Your task to perform on an android device: Play the latest video from the Washington Post Image 0: 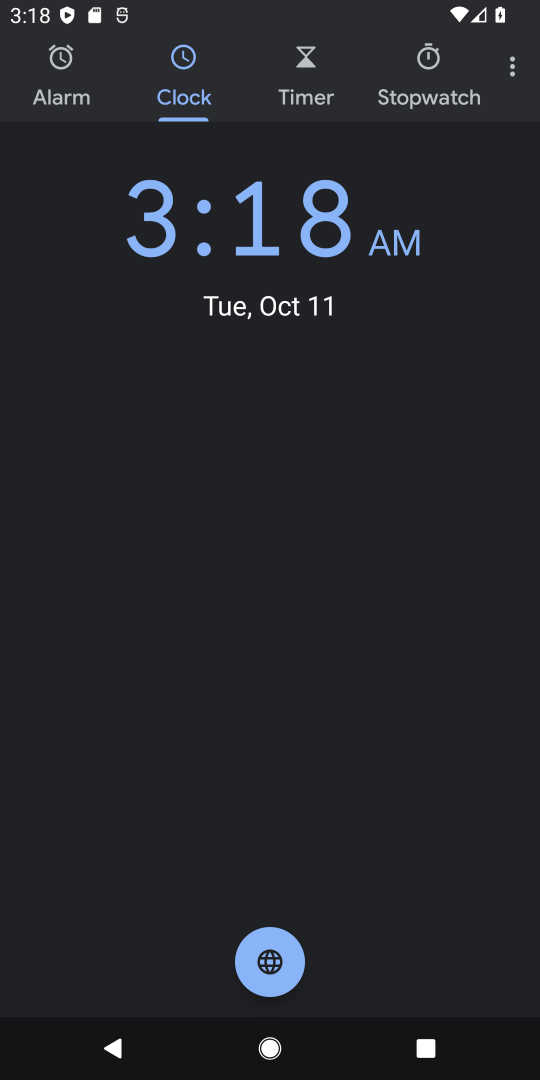
Step 0: press home button
Your task to perform on an android device: Play the latest video from the Washington Post Image 1: 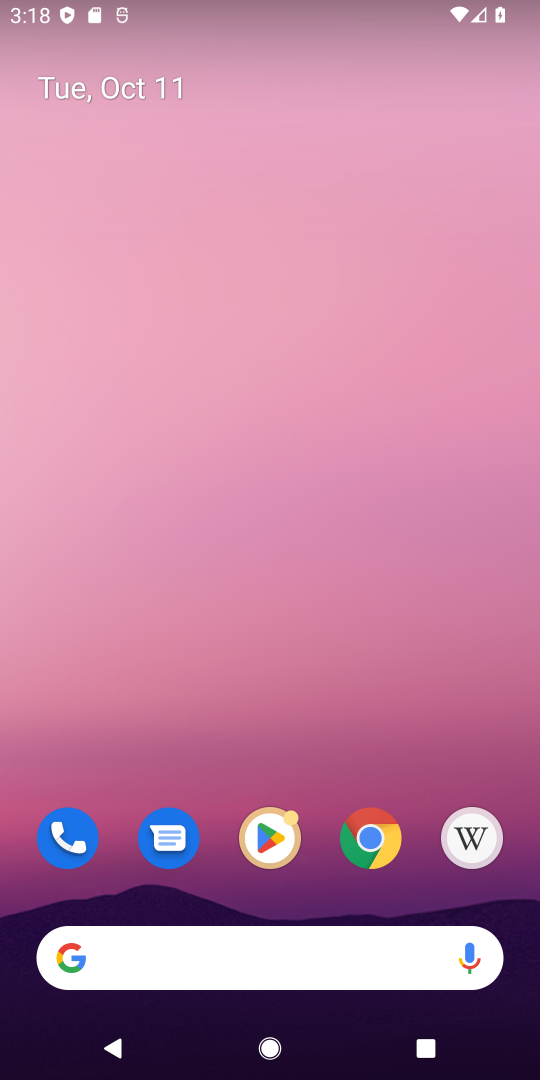
Step 1: drag from (330, 737) to (390, 30)
Your task to perform on an android device: Play the latest video from the Washington Post Image 2: 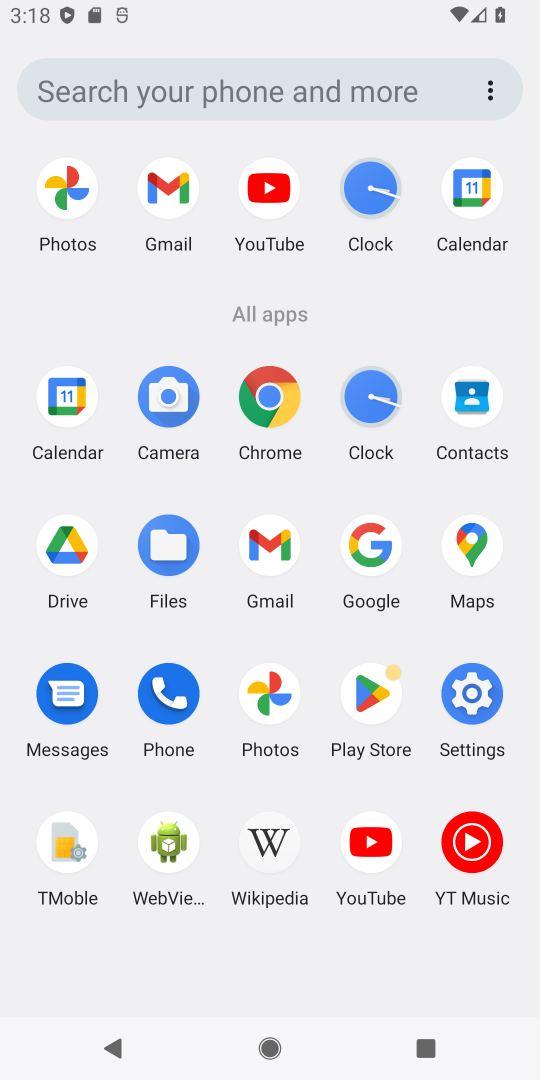
Step 2: click (269, 191)
Your task to perform on an android device: Play the latest video from the Washington Post Image 3: 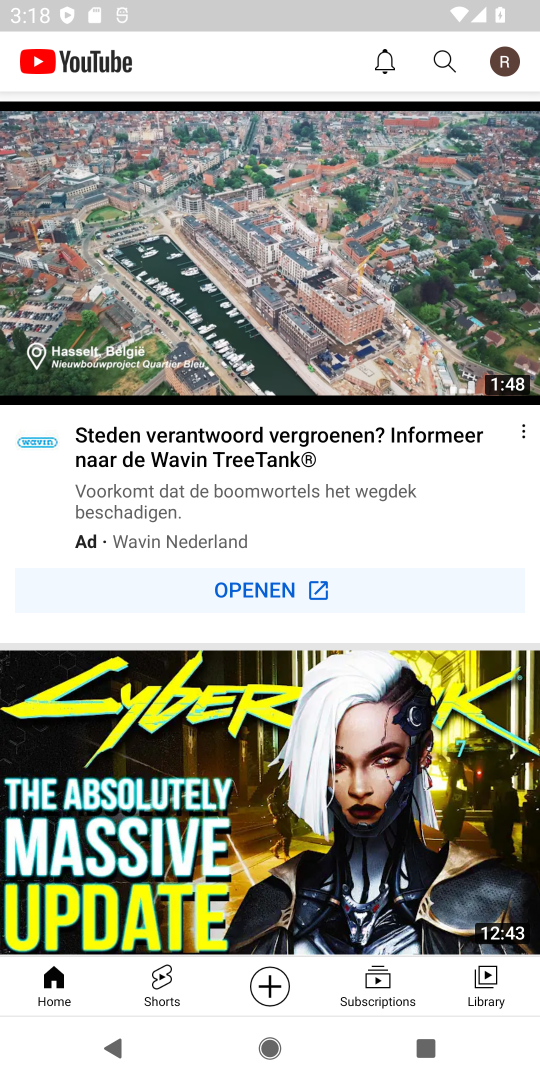
Step 3: click (446, 60)
Your task to perform on an android device: Play the latest video from the Washington Post Image 4: 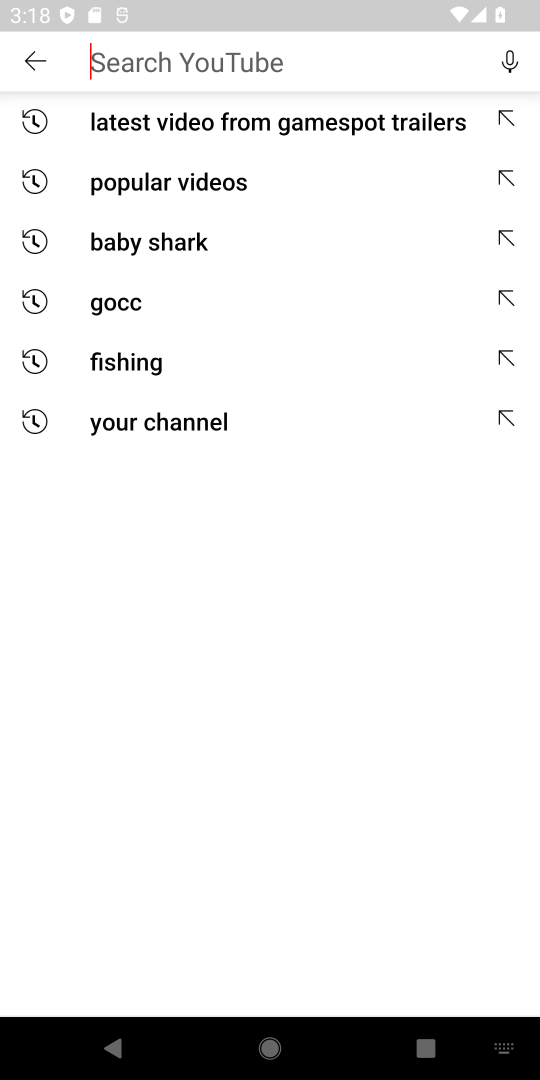
Step 4: type "Washington Post"
Your task to perform on an android device: Play the latest video from the Washington Post Image 5: 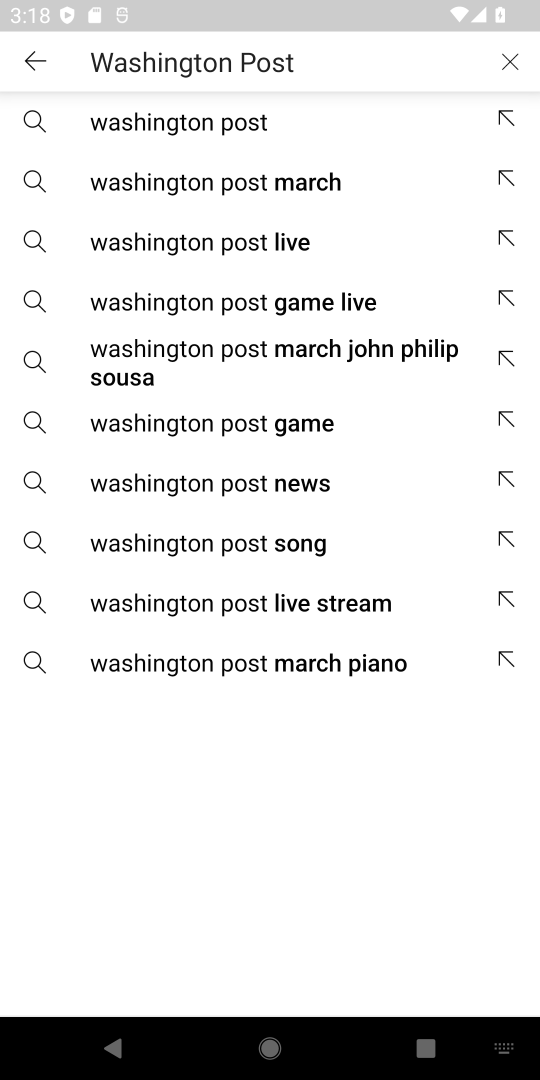
Step 5: click (197, 132)
Your task to perform on an android device: Play the latest video from the Washington Post Image 6: 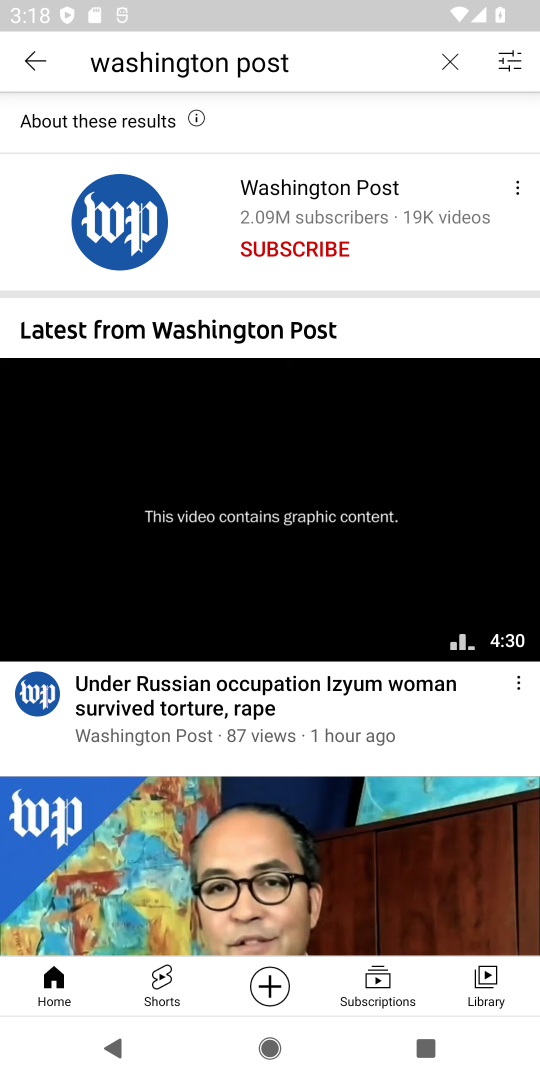
Step 6: click (227, 580)
Your task to perform on an android device: Play the latest video from the Washington Post Image 7: 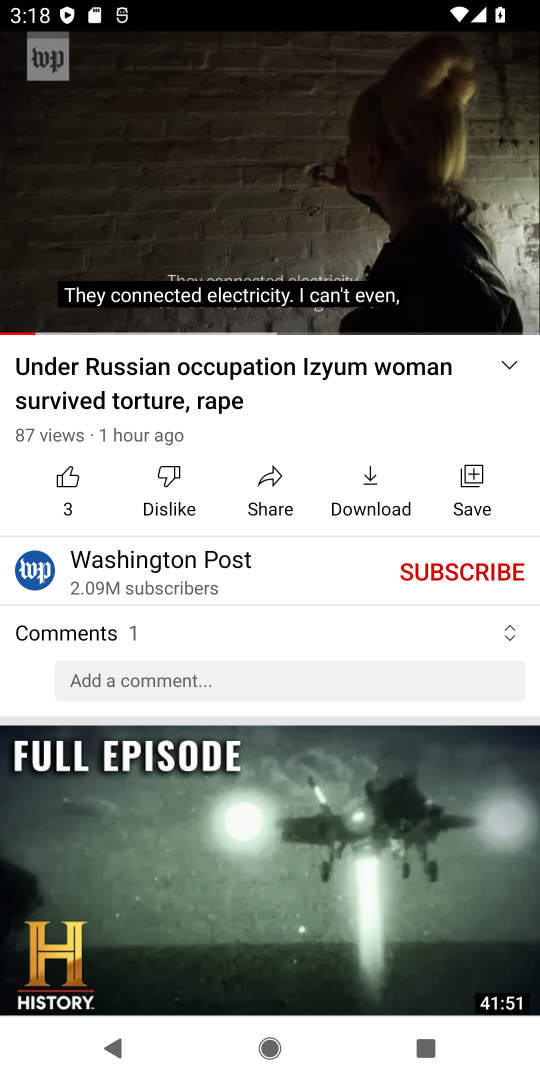
Step 7: click (256, 184)
Your task to perform on an android device: Play the latest video from the Washington Post Image 8: 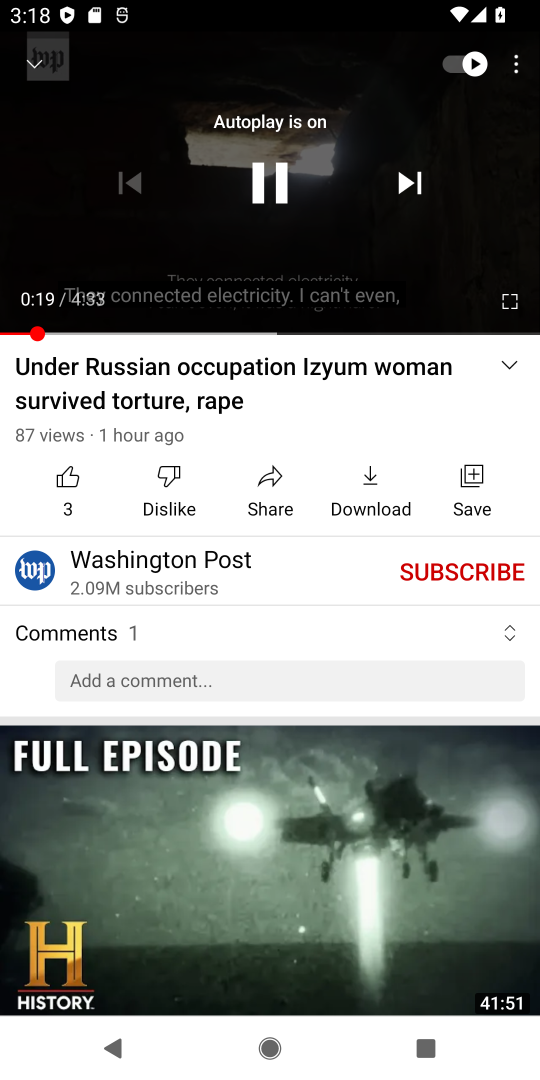
Step 8: click (263, 172)
Your task to perform on an android device: Play the latest video from the Washington Post Image 9: 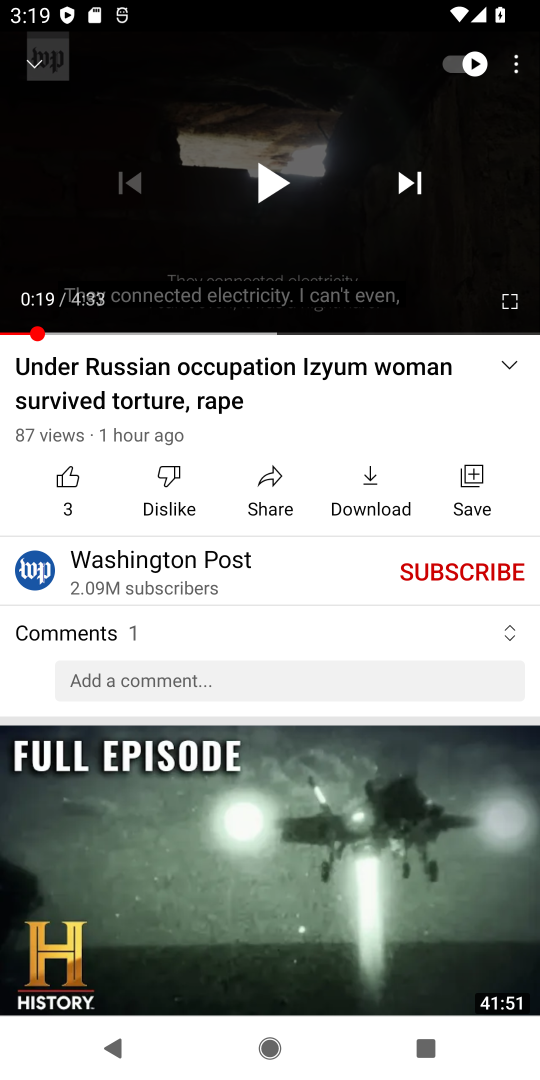
Step 9: task complete